Your task to perform on an android device: Open display settings Image 0: 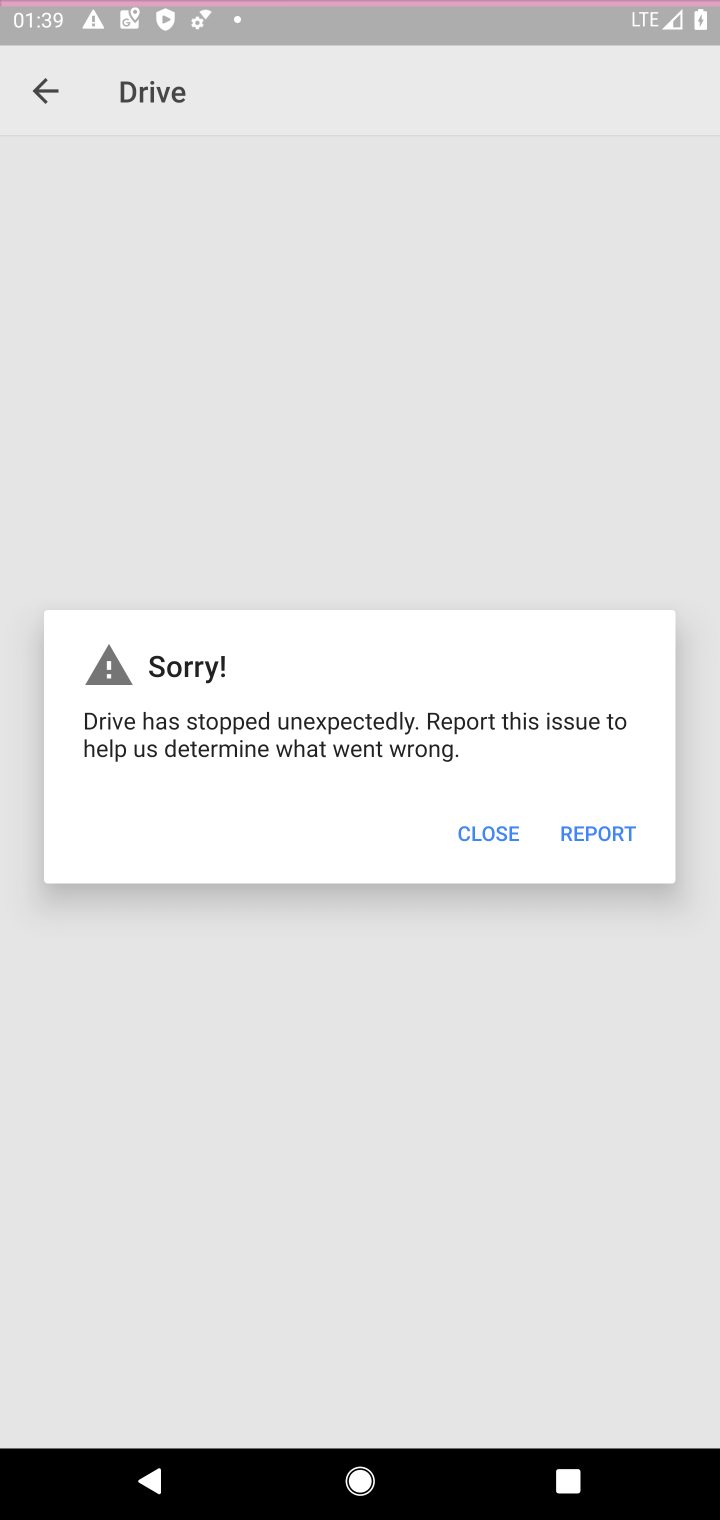
Step 0: press home button
Your task to perform on an android device: Open display settings Image 1: 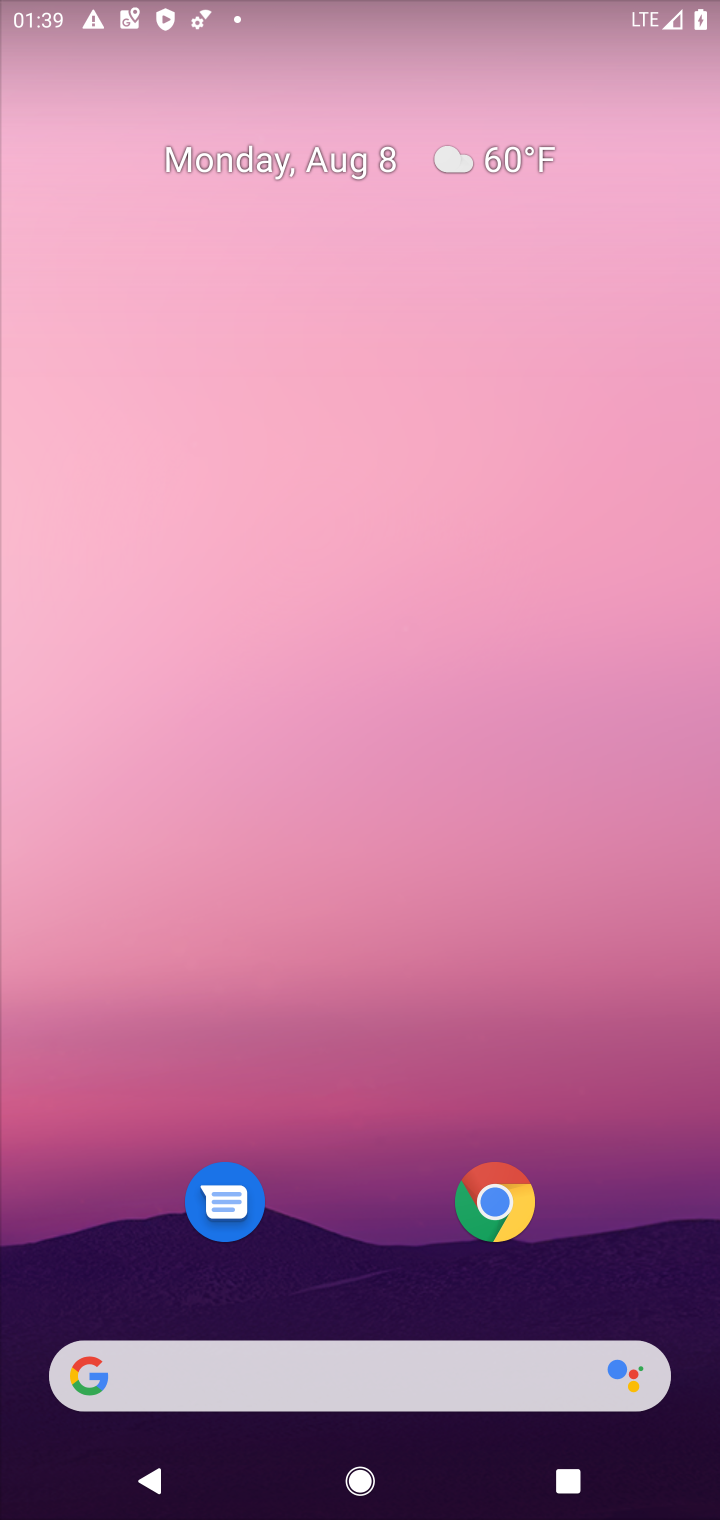
Step 1: click (260, 238)
Your task to perform on an android device: Open display settings Image 2: 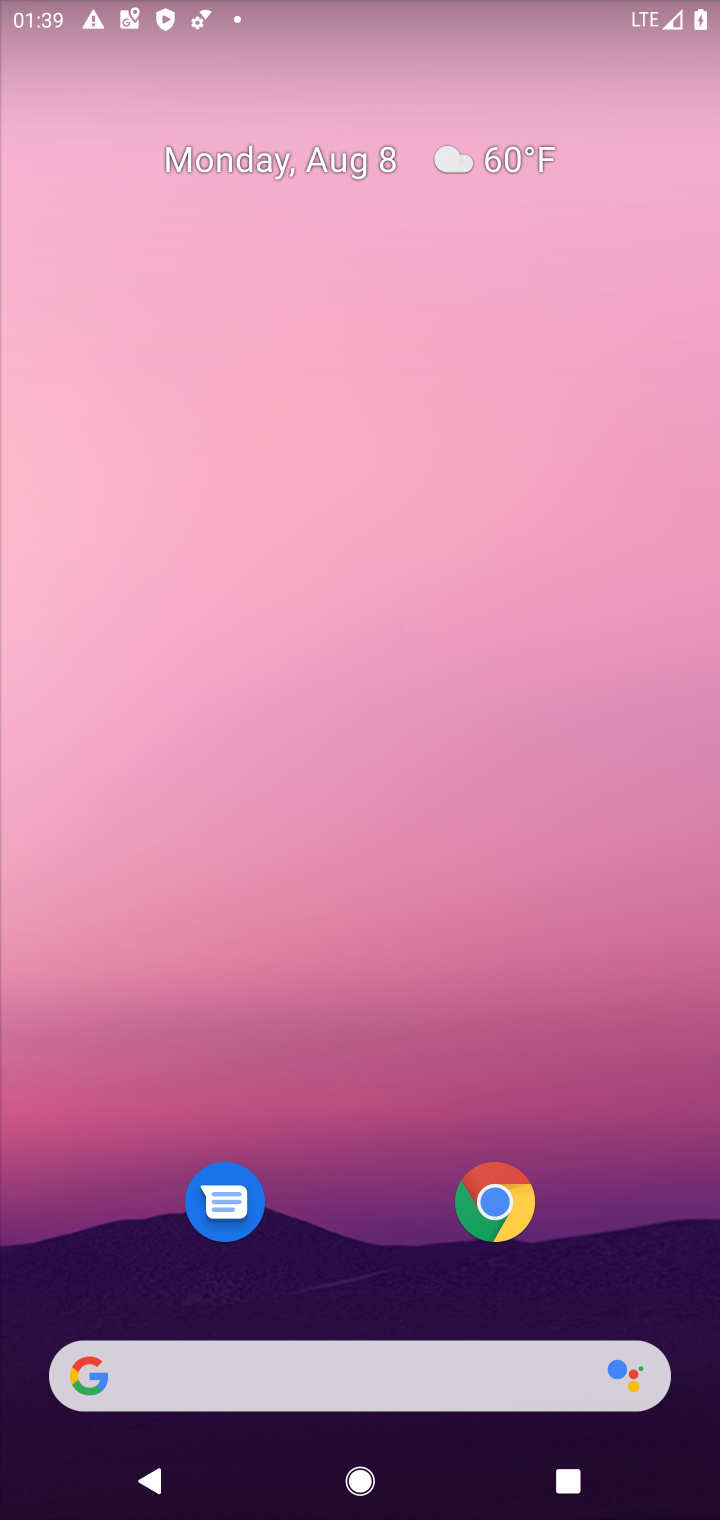
Step 2: click (337, 244)
Your task to perform on an android device: Open display settings Image 3: 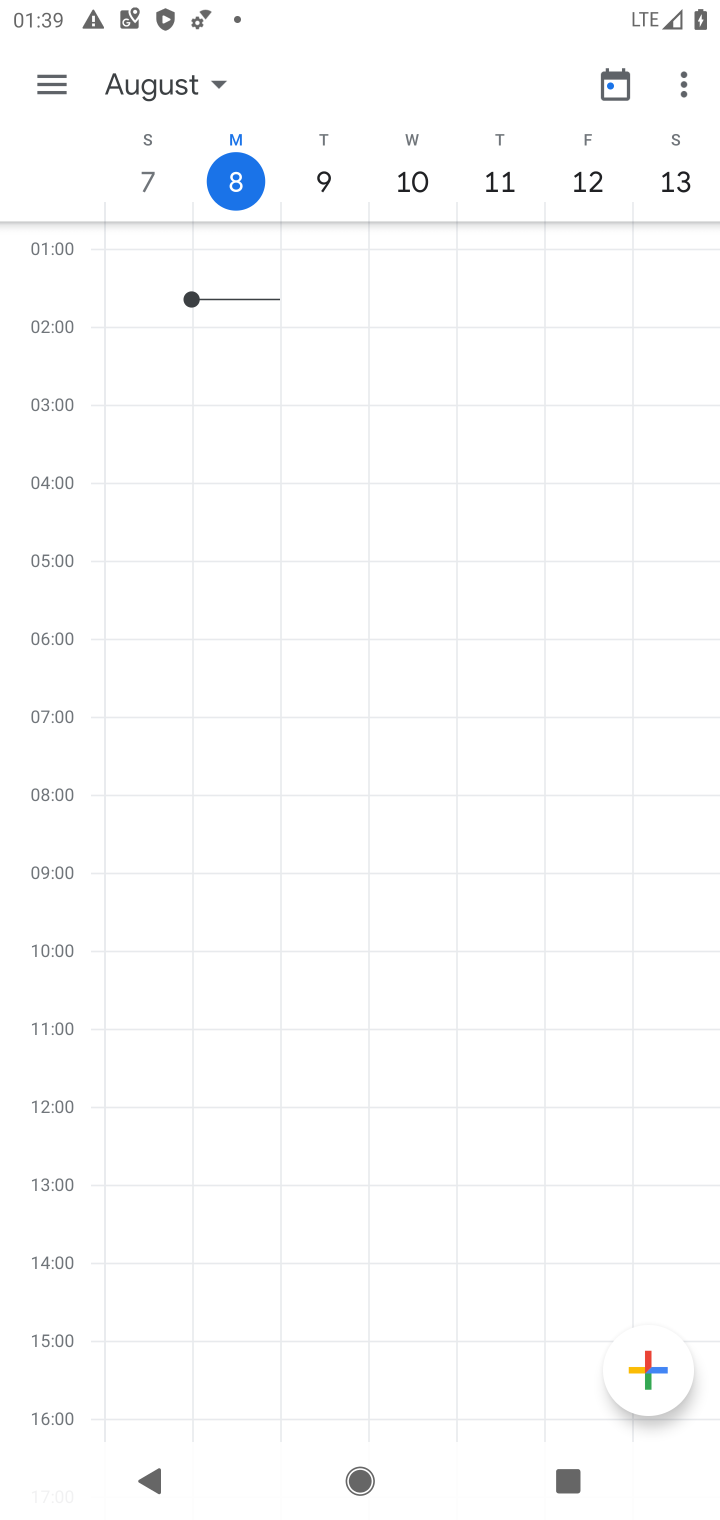
Step 3: press back button
Your task to perform on an android device: Open display settings Image 4: 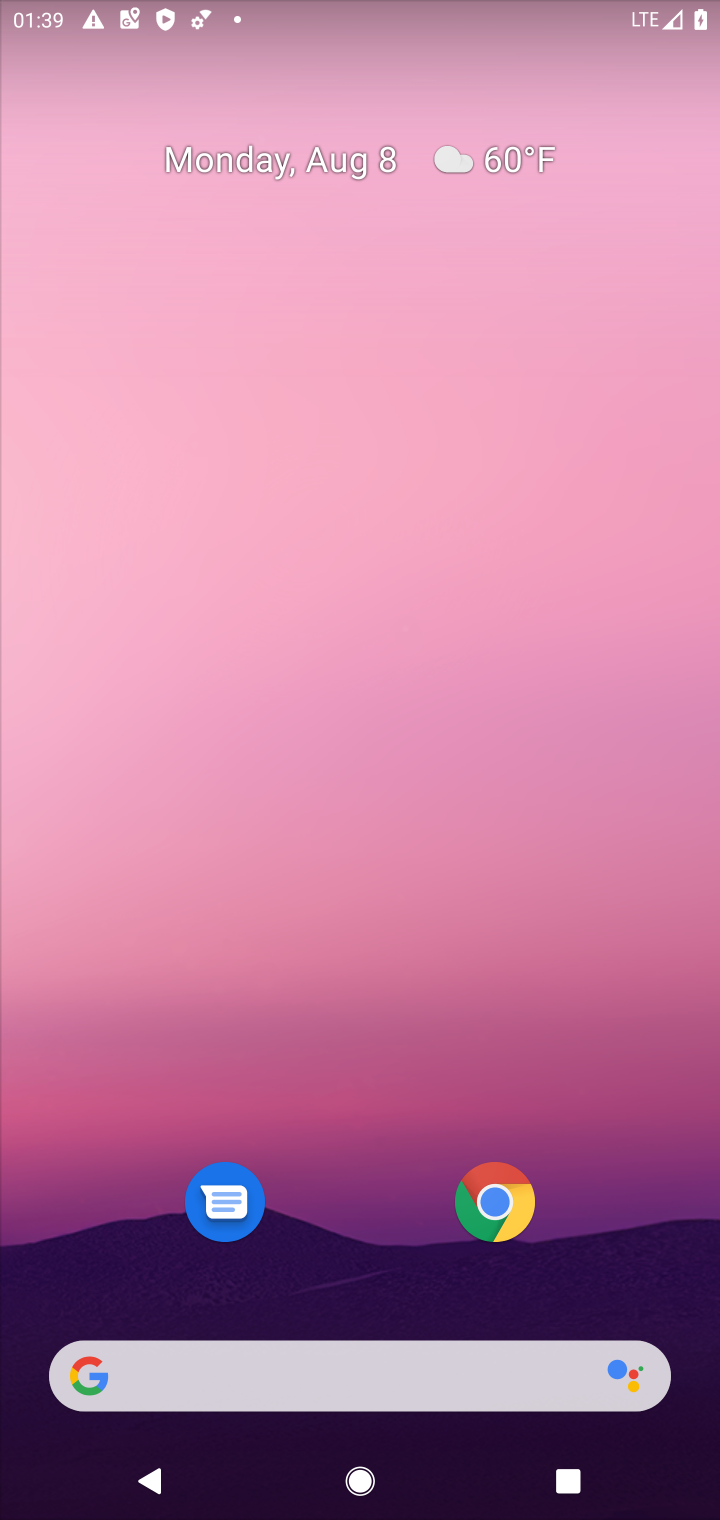
Step 4: drag from (383, 465) to (379, 18)
Your task to perform on an android device: Open display settings Image 5: 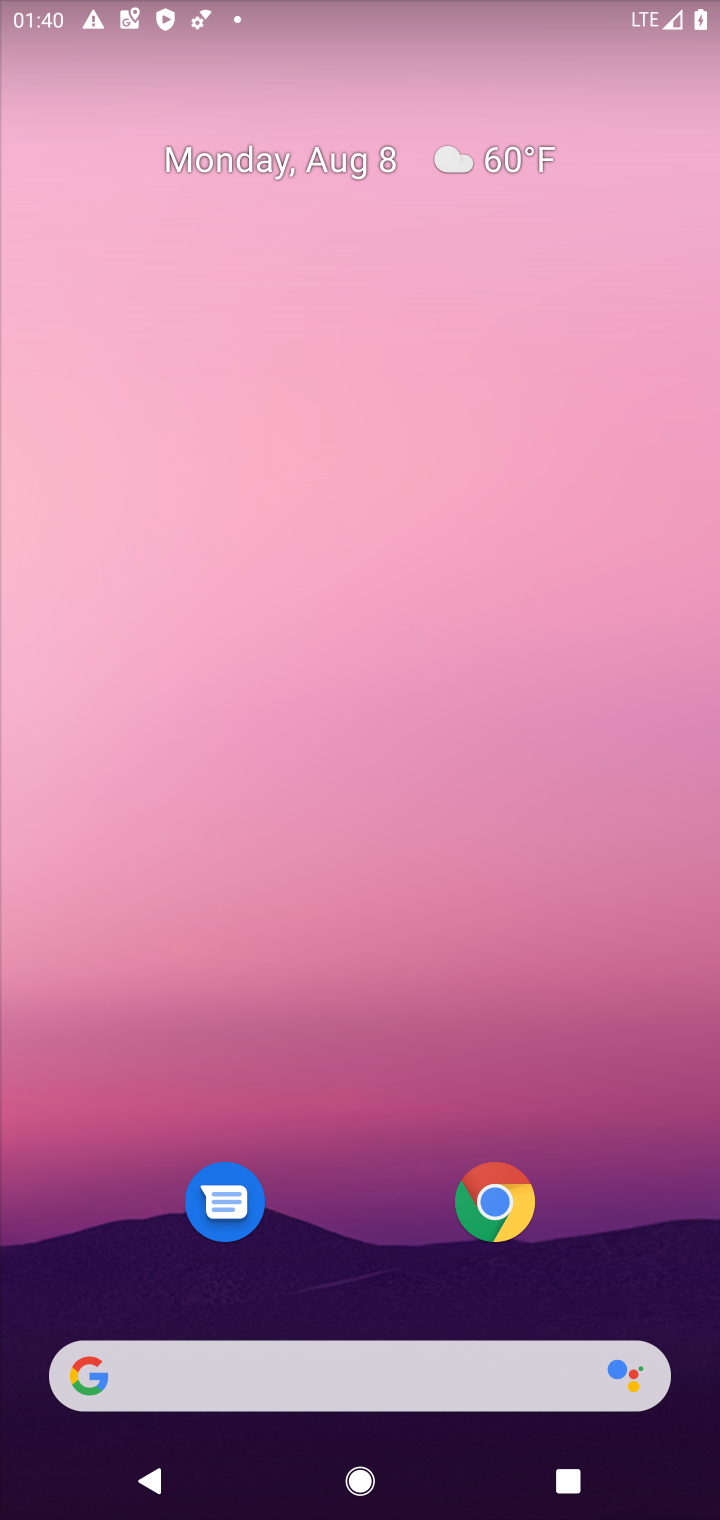
Step 5: click (291, 97)
Your task to perform on an android device: Open display settings Image 6: 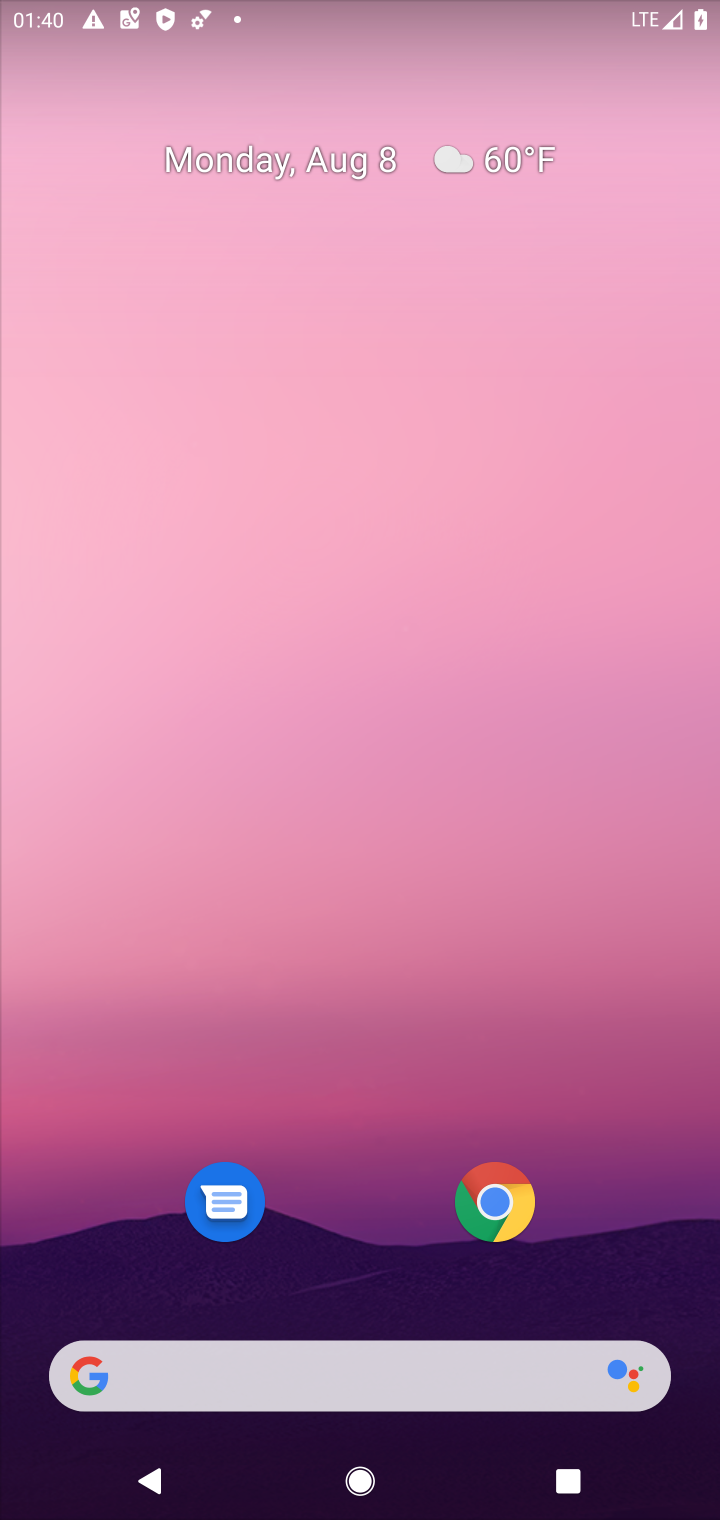
Step 6: drag from (387, 429) to (387, 57)
Your task to perform on an android device: Open display settings Image 7: 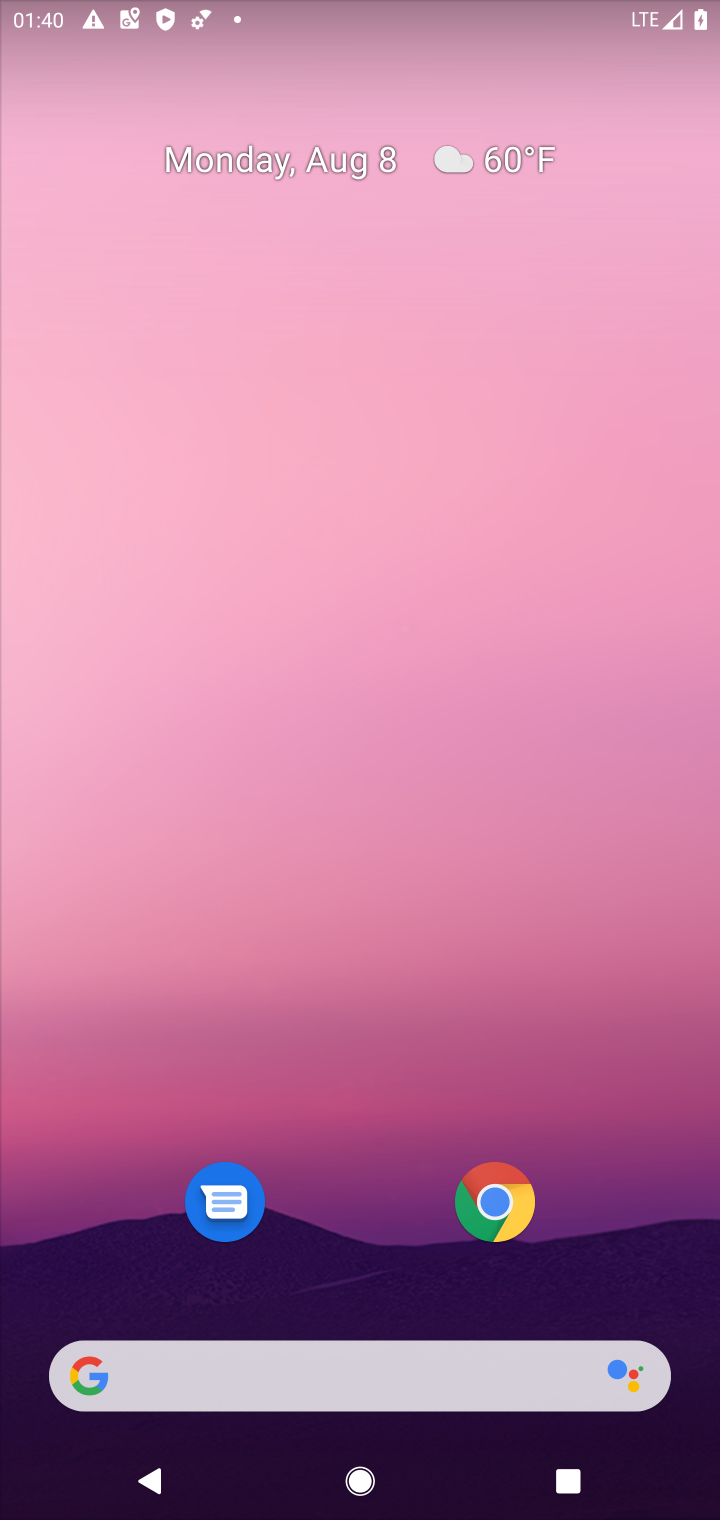
Step 7: click (276, 143)
Your task to perform on an android device: Open display settings Image 8: 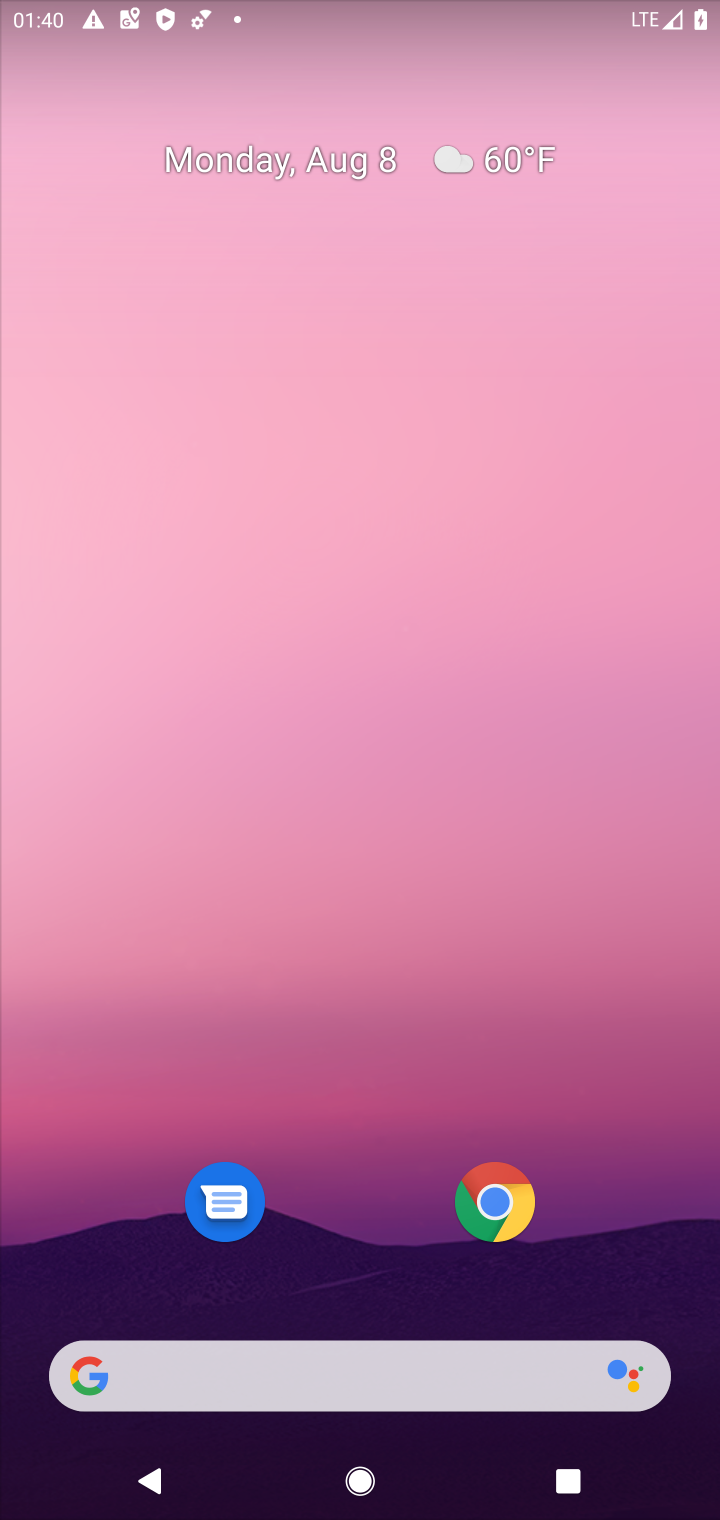
Step 8: drag from (335, 1053) to (390, 119)
Your task to perform on an android device: Open display settings Image 9: 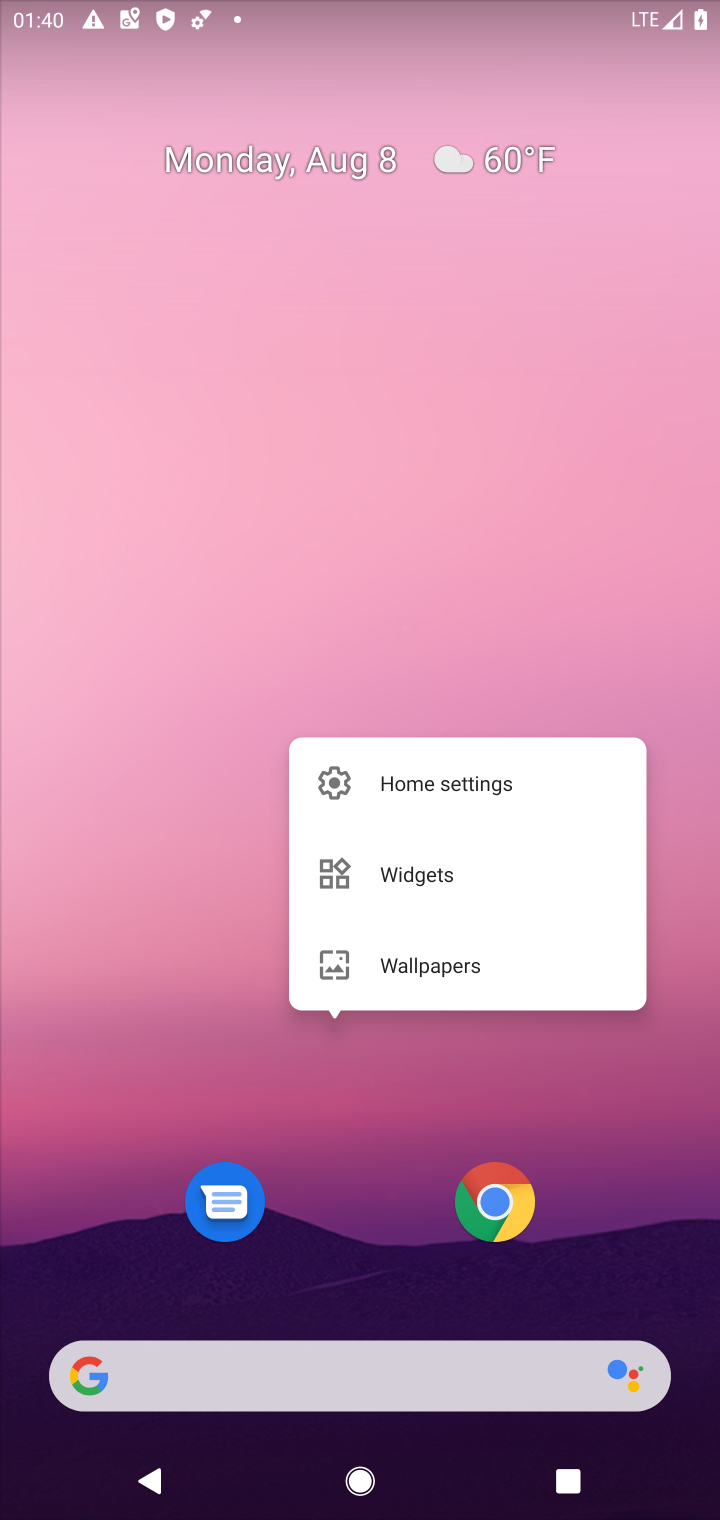
Step 9: click (353, 1299)
Your task to perform on an android device: Open display settings Image 10: 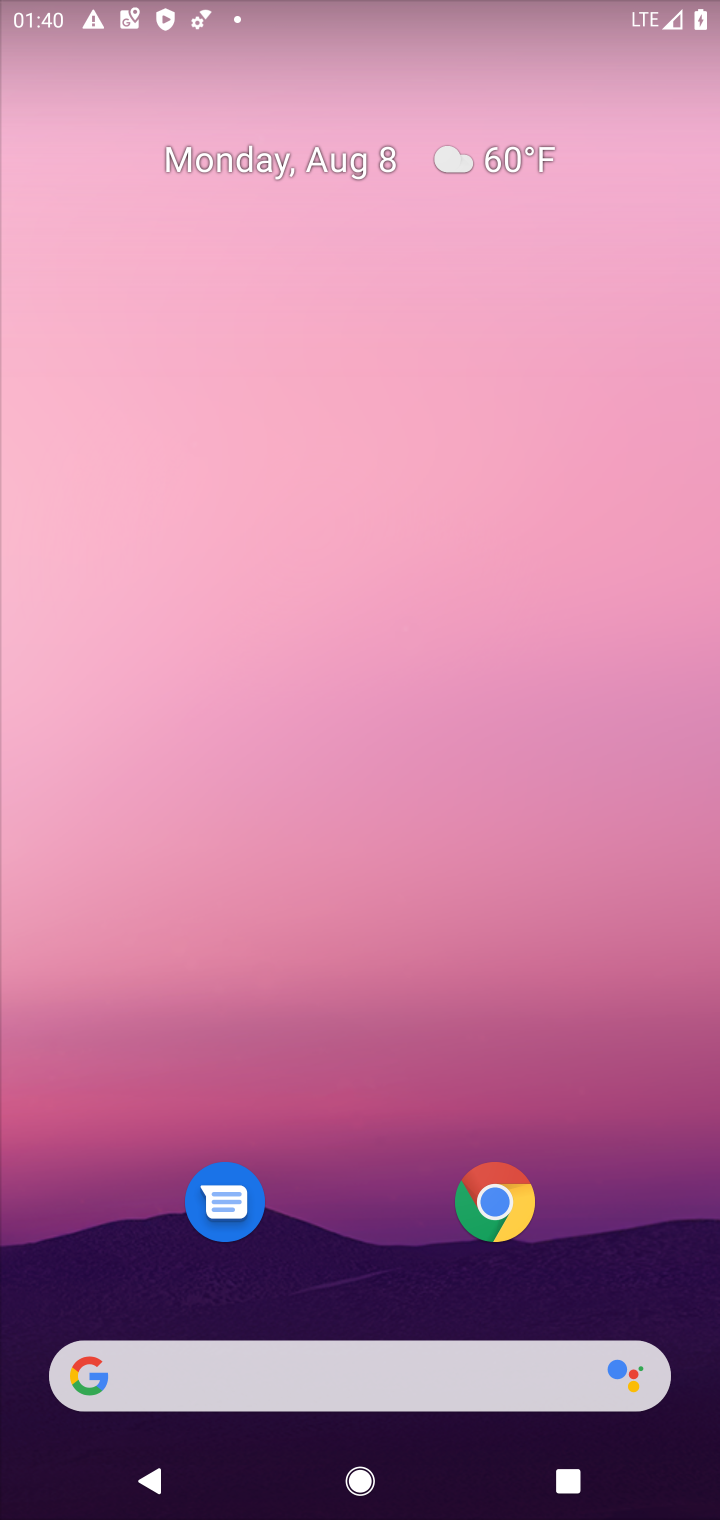
Step 10: drag from (378, 529) to (429, 100)
Your task to perform on an android device: Open display settings Image 11: 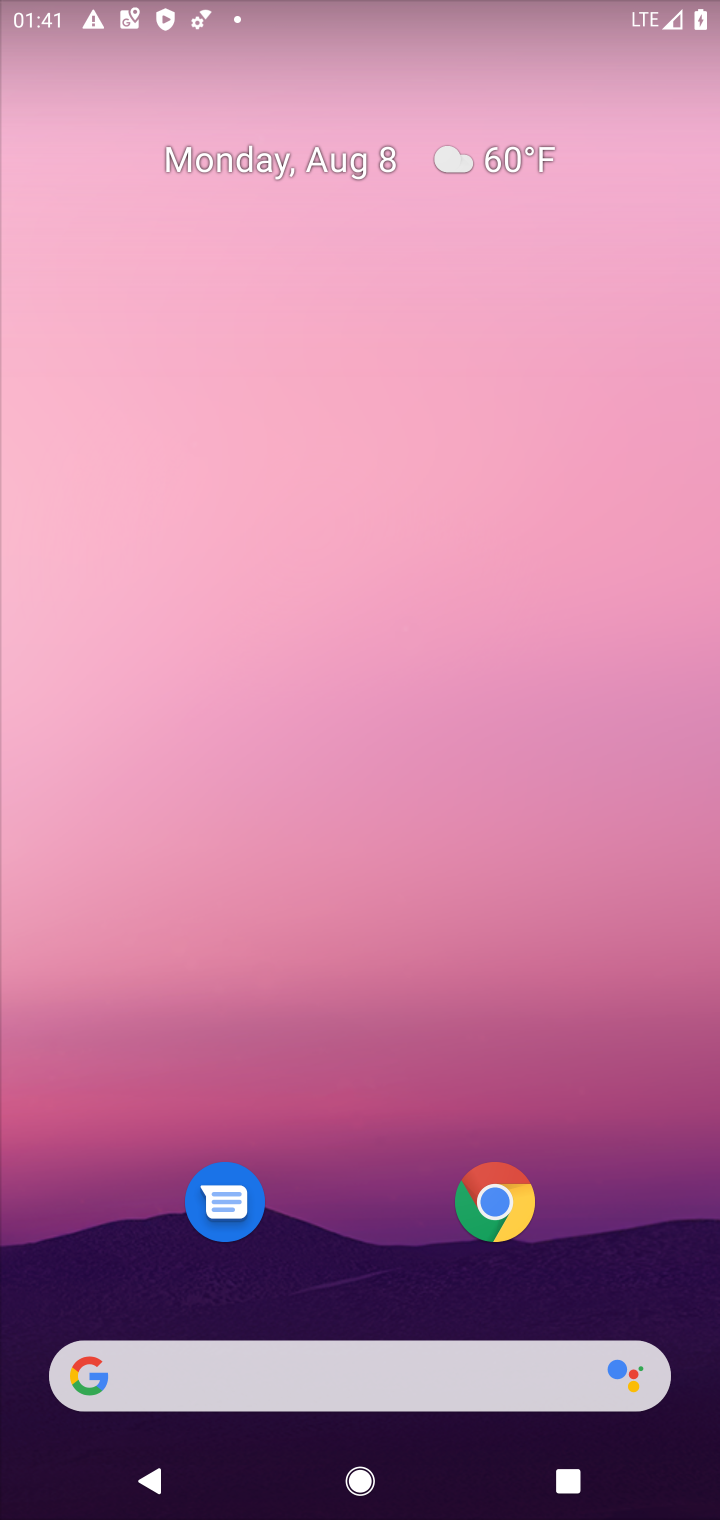
Step 11: drag from (341, 790) to (331, 212)
Your task to perform on an android device: Open display settings Image 12: 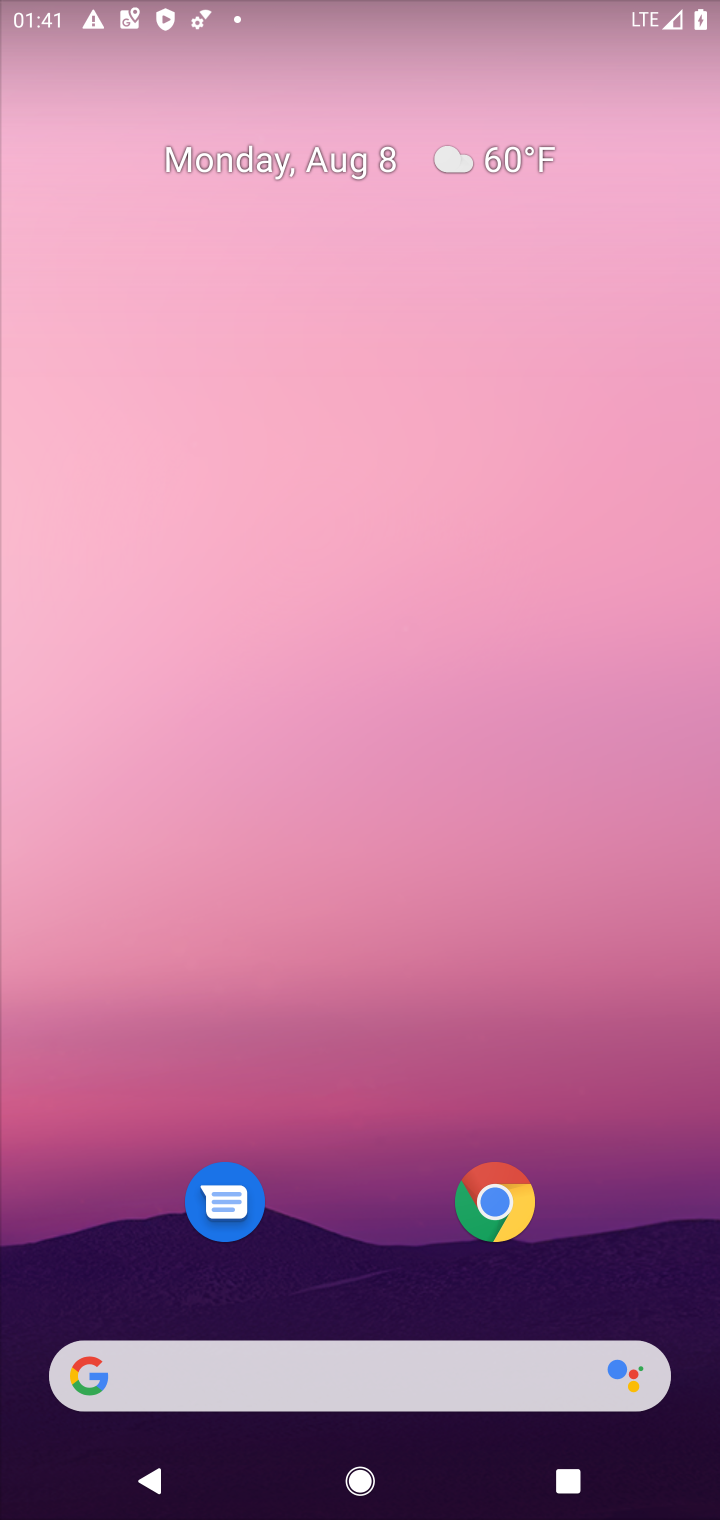
Step 12: click (340, 62)
Your task to perform on an android device: Open display settings Image 13: 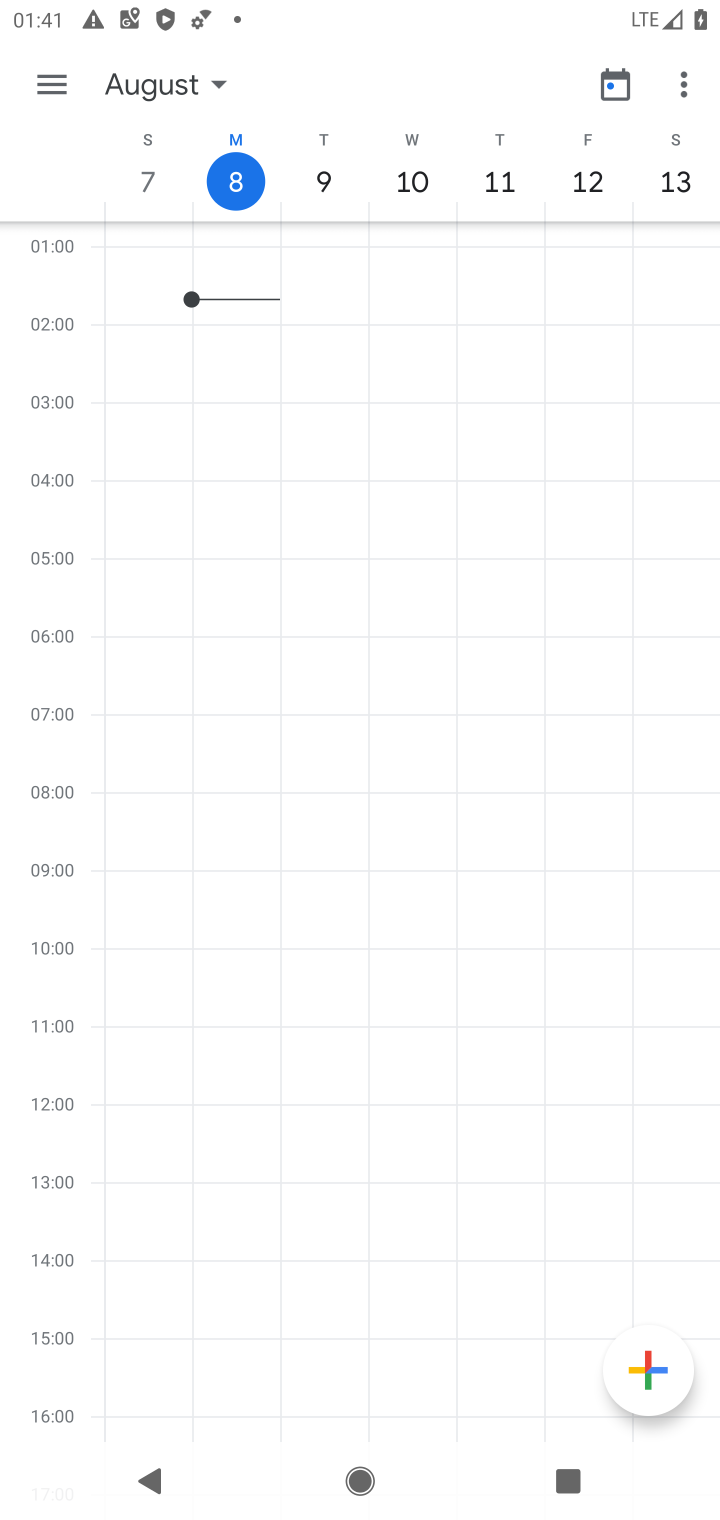
Step 13: press home button
Your task to perform on an android device: Open display settings Image 14: 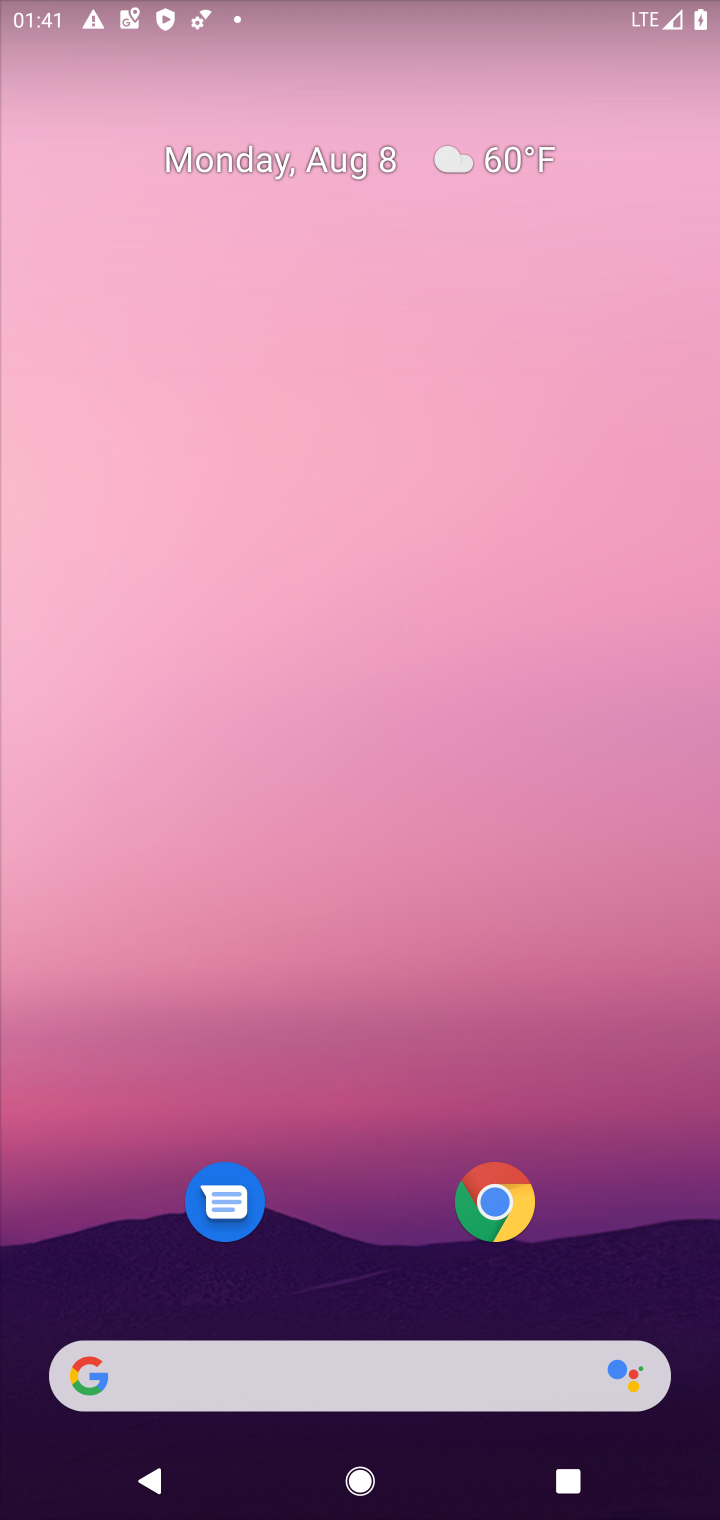
Step 14: drag from (416, 724) to (399, 194)
Your task to perform on an android device: Open display settings Image 15: 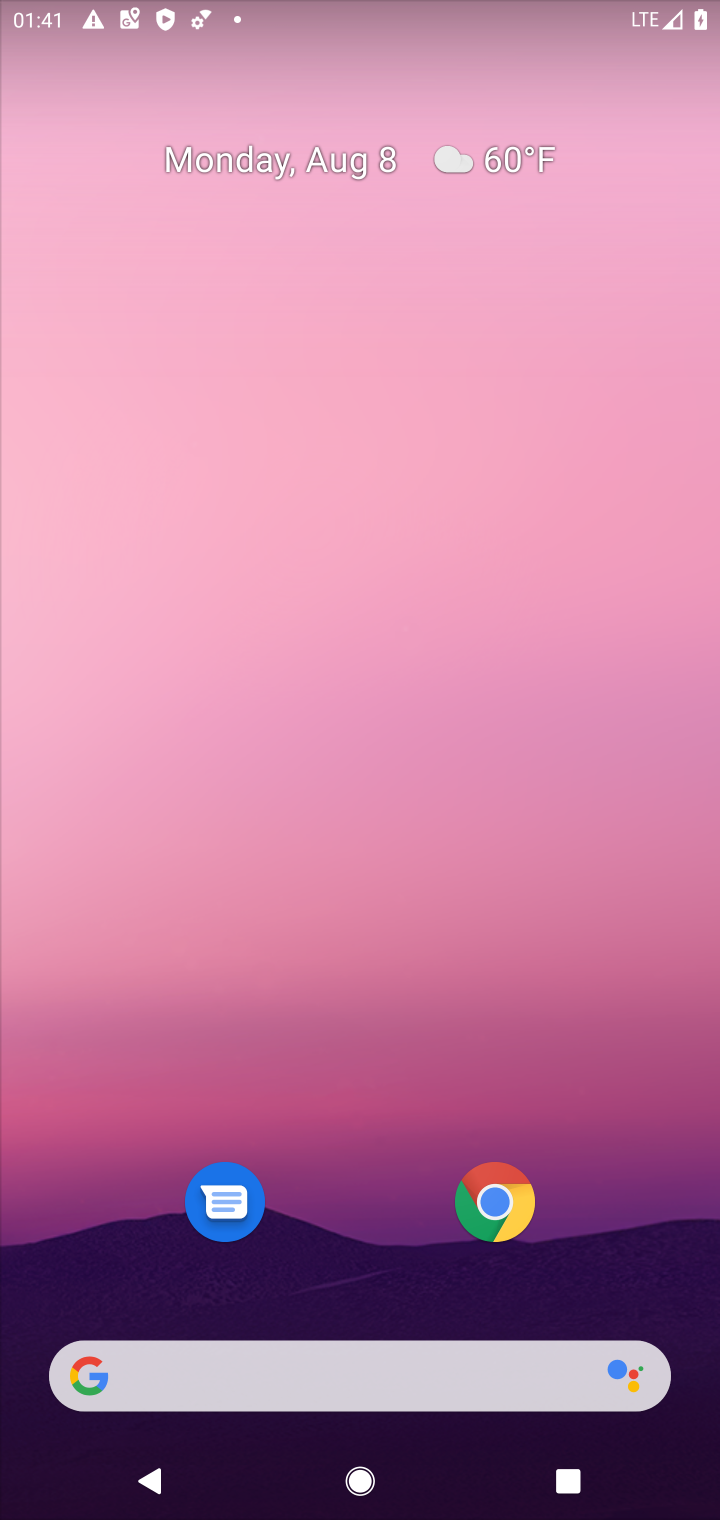
Step 15: drag from (360, 1105) to (338, 163)
Your task to perform on an android device: Open display settings Image 16: 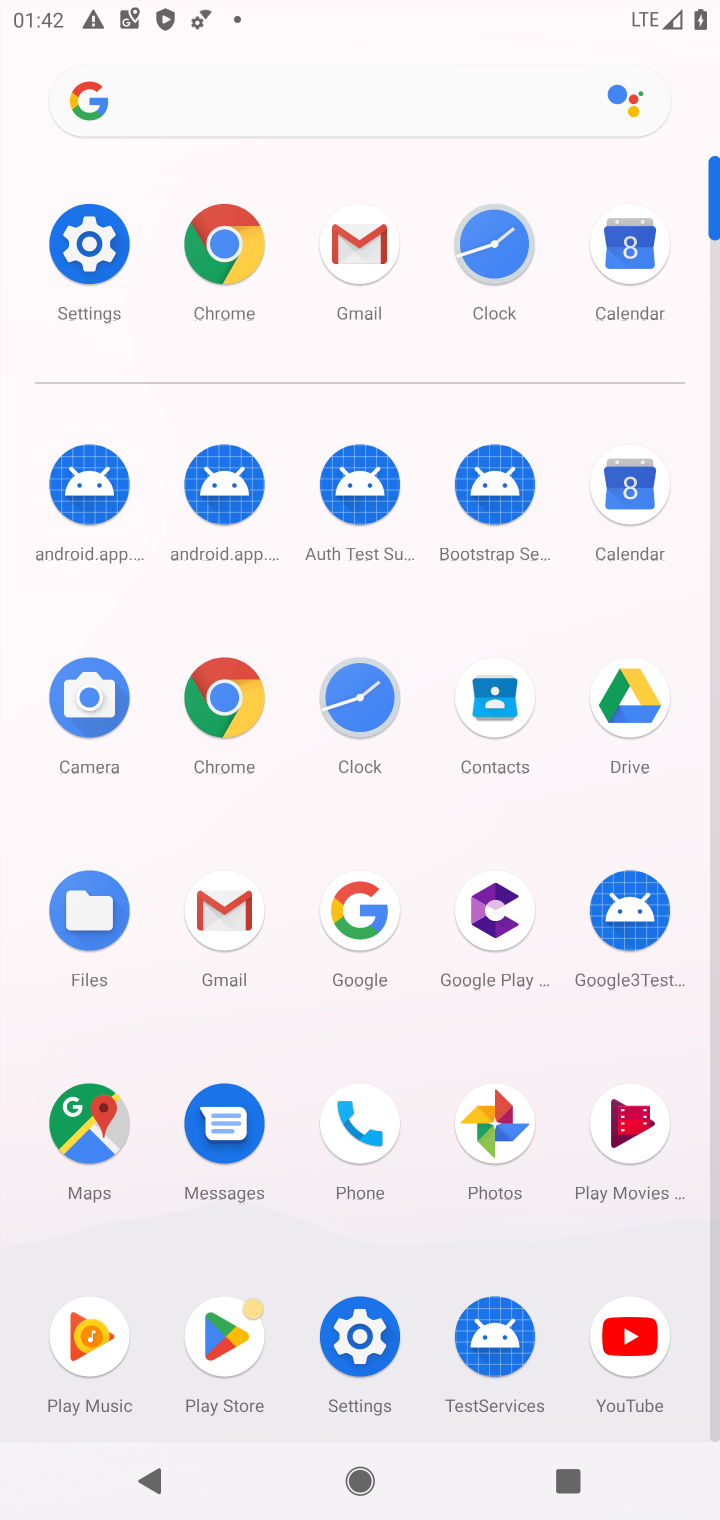
Step 16: click (86, 244)
Your task to perform on an android device: Open display settings Image 17: 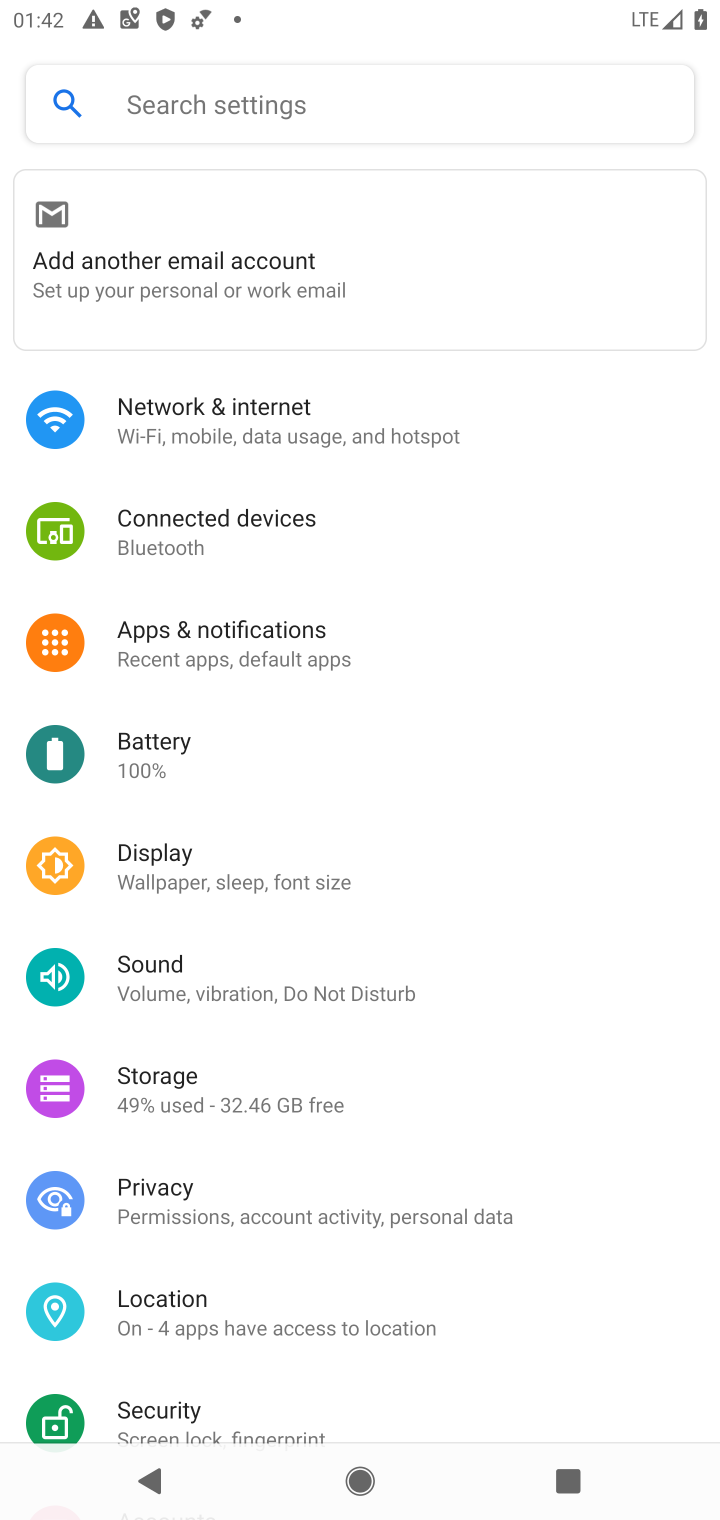
Step 17: click (171, 864)
Your task to perform on an android device: Open display settings Image 18: 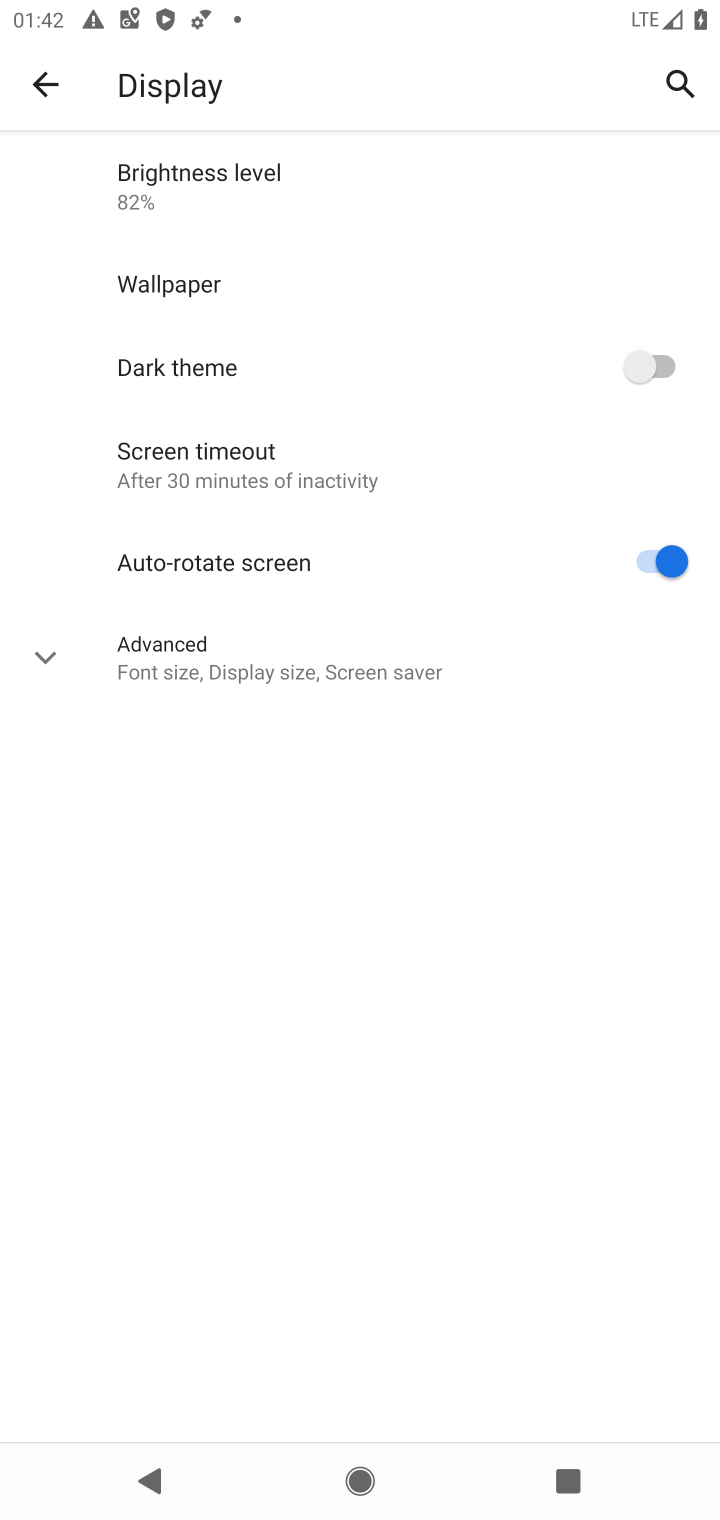
Step 18: task complete